Your task to perform on an android device: Open CNN.com Image 0: 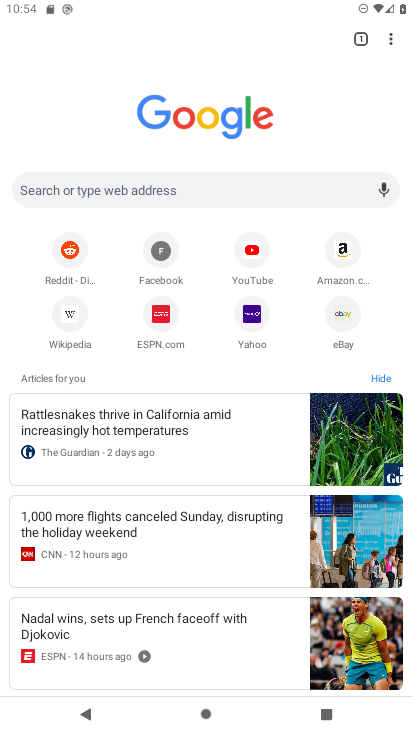
Step 0: click (136, 176)
Your task to perform on an android device: Open CNN.com Image 1: 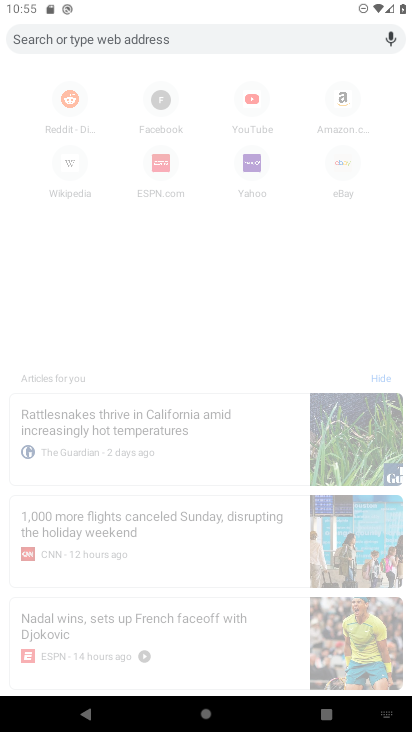
Step 1: click (138, 39)
Your task to perform on an android device: Open CNN.com Image 2: 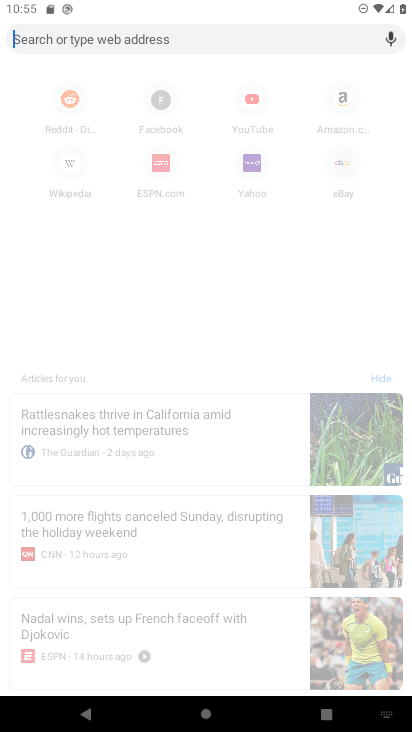
Step 2: click (109, 39)
Your task to perform on an android device: Open CNN.com Image 3: 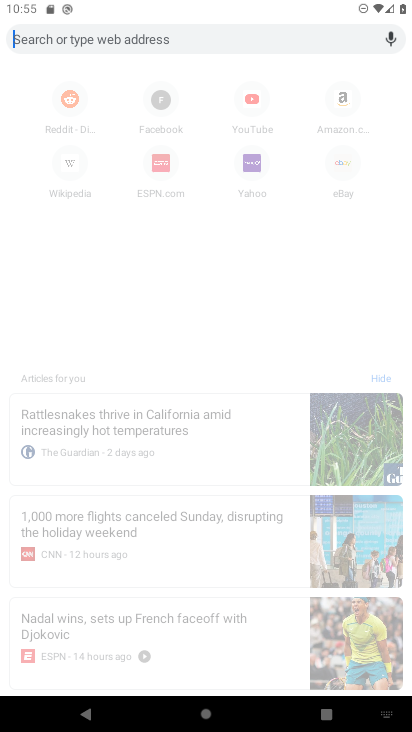
Step 3: type "cnn.com"
Your task to perform on an android device: Open CNN.com Image 4: 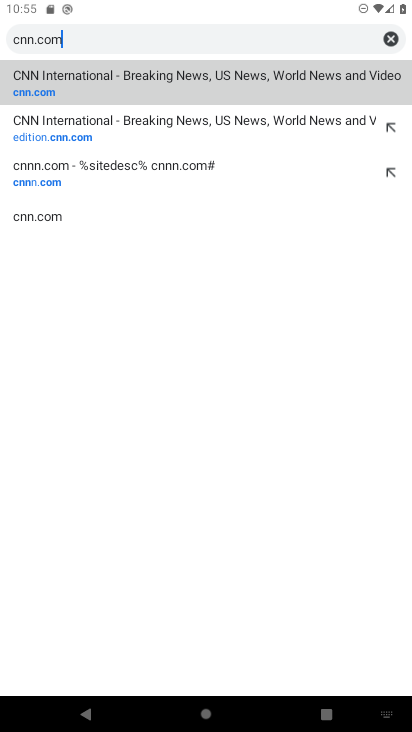
Step 4: click (167, 88)
Your task to perform on an android device: Open CNN.com Image 5: 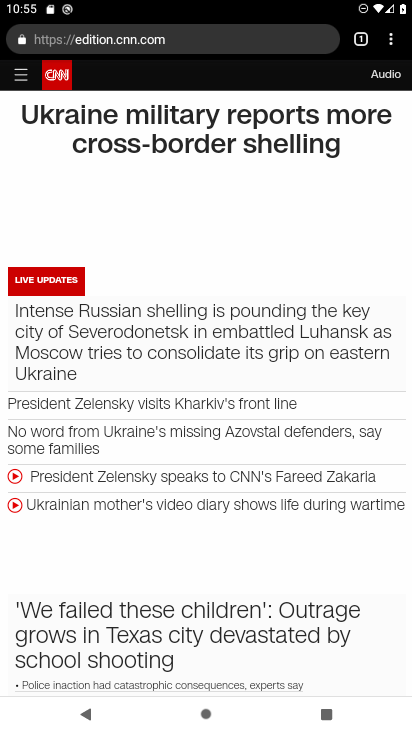
Step 5: task complete